Your task to perform on an android device: Go to network settings Image 0: 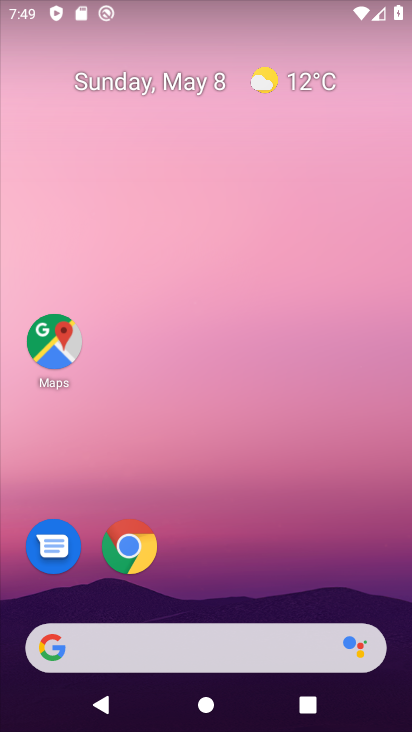
Step 0: drag from (404, 635) to (363, 194)
Your task to perform on an android device: Go to network settings Image 1: 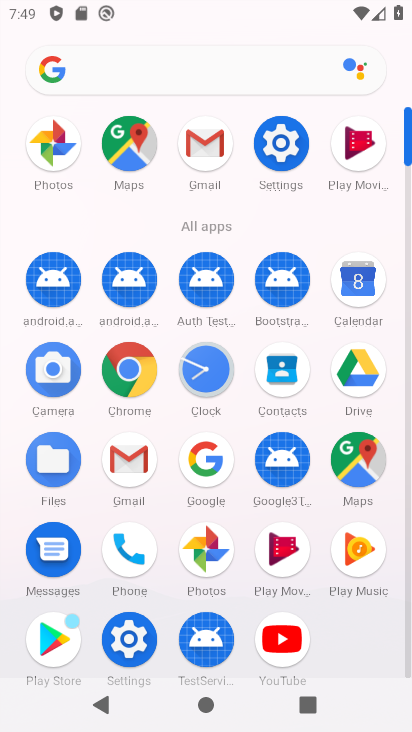
Step 1: click (289, 144)
Your task to perform on an android device: Go to network settings Image 2: 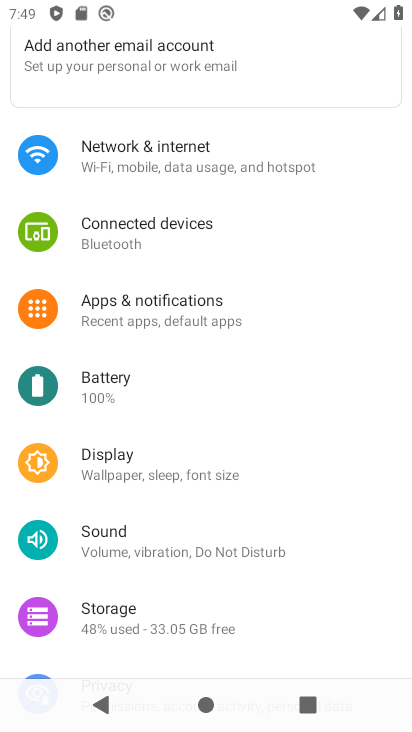
Step 2: click (150, 149)
Your task to perform on an android device: Go to network settings Image 3: 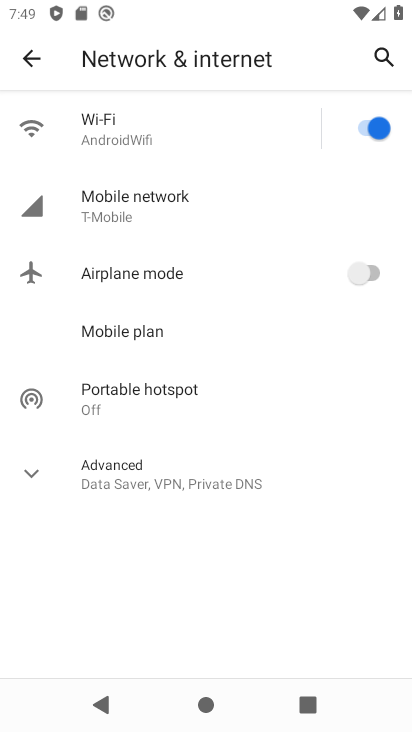
Step 3: click (124, 211)
Your task to perform on an android device: Go to network settings Image 4: 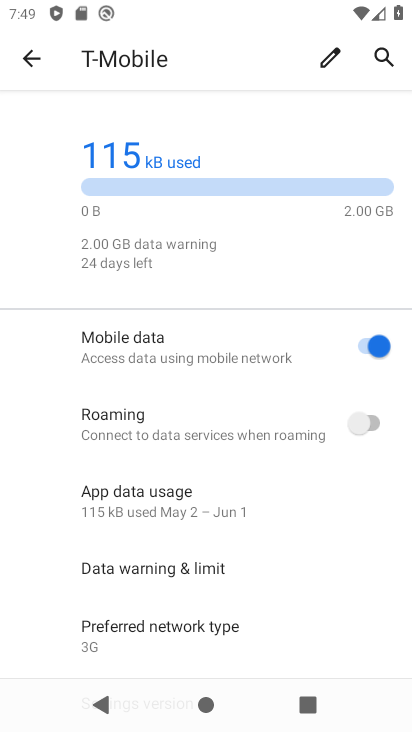
Step 4: task complete